Your task to perform on an android device: Open calendar and show me the third week of next month Image 0: 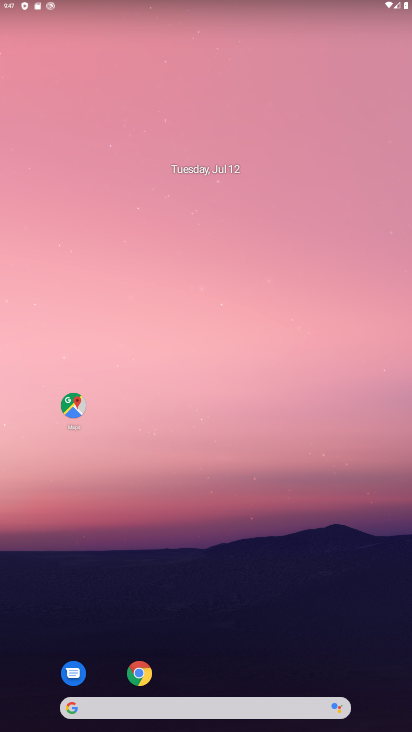
Step 0: drag from (238, 495) to (237, 1)
Your task to perform on an android device: Open calendar and show me the third week of next month Image 1: 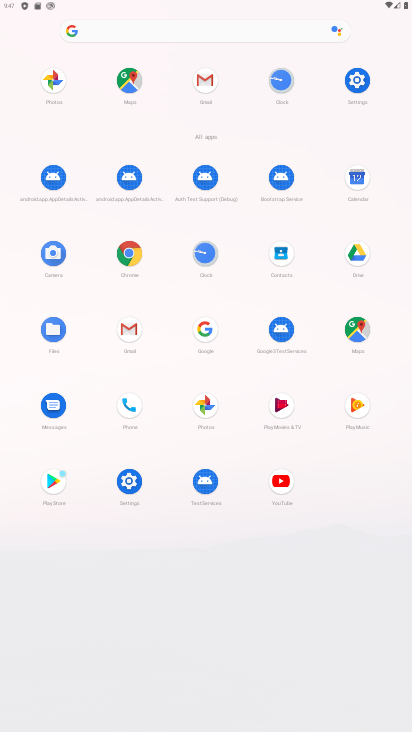
Step 1: click (356, 178)
Your task to perform on an android device: Open calendar and show me the third week of next month Image 2: 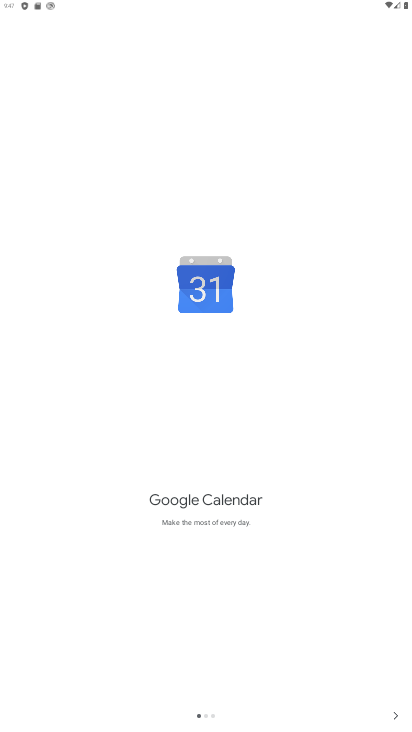
Step 2: click (401, 719)
Your task to perform on an android device: Open calendar and show me the third week of next month Image 3: 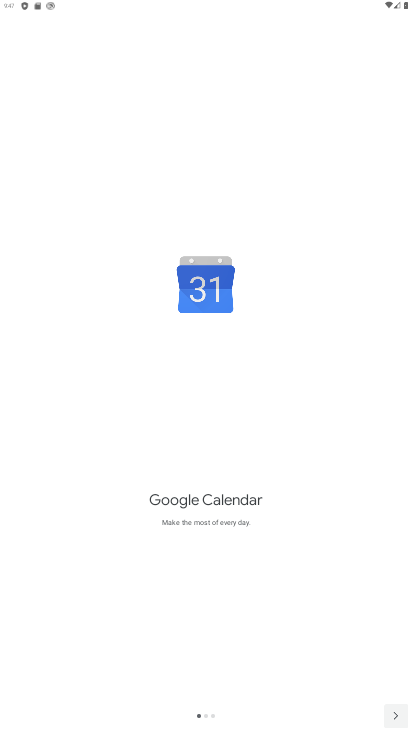
Step 3: click (401, 718)
Your task to perform on an android device: Open calendar and show me the third week of next month Image 4: 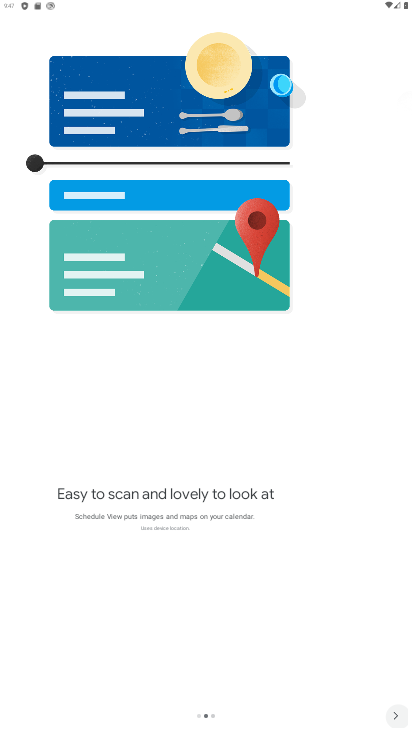
Step 4: click (401, 718)
Your task to perform on an android device: Open calendar and show me the third week of next month Image 5: 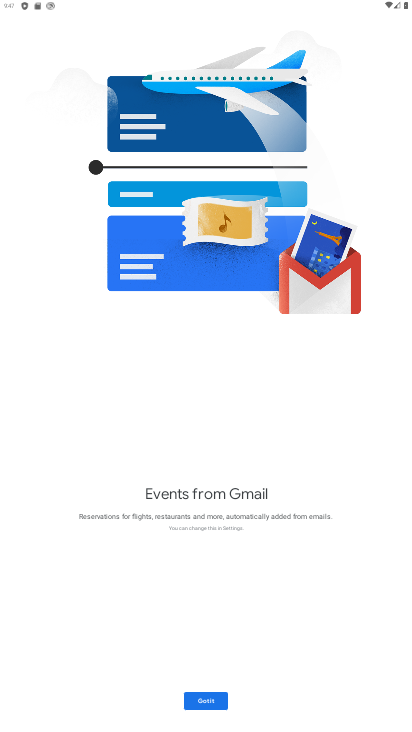
Step 5: click (401, 718)
Your task to perform on an android device: Open calendar and show me the third week of next month Image 6: 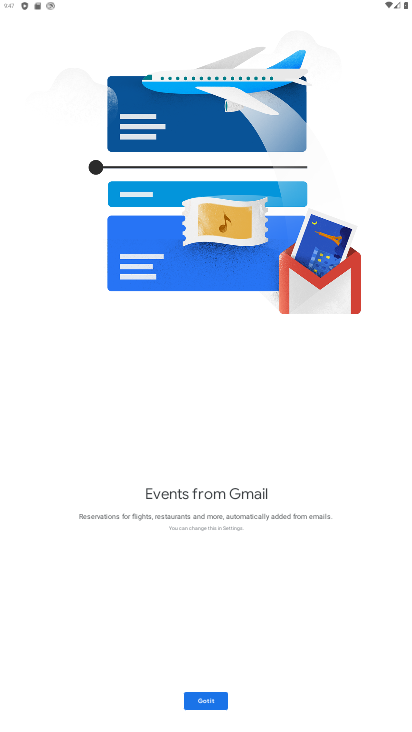
Step 6: click (202, 699)
Your task to perform on an android device: Open calendar and show me the third week of next month Image 7: 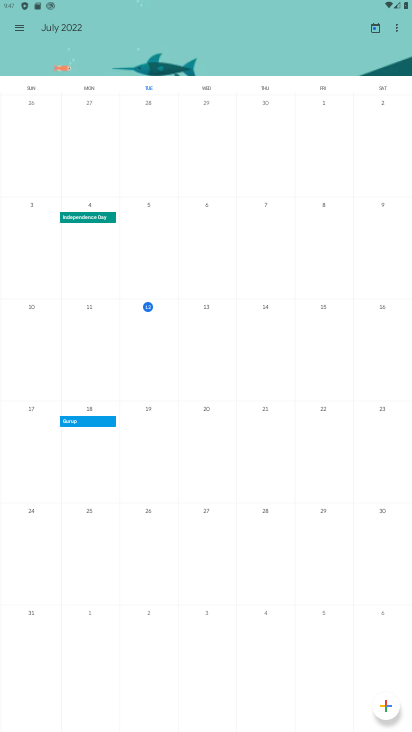
Step 7: drag from (372, 269) to (0, 228)
Your task to perform on an android device: Open calendar and show me the third week of next month Image 8: 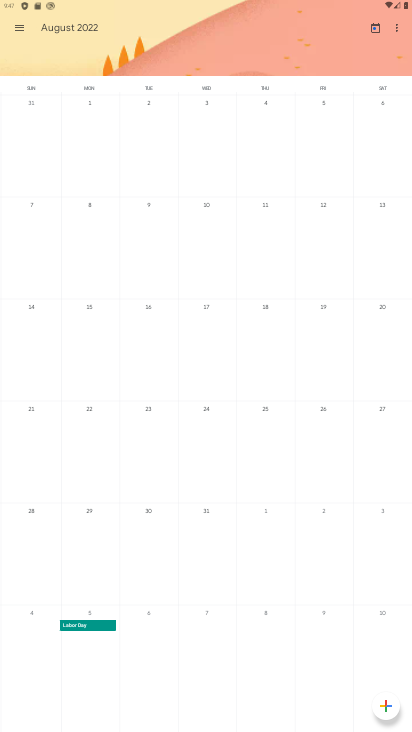
Step 8: click (93, 305)
Your task to perform on an android device: Open calendar and show me the third week of next month Image 9: 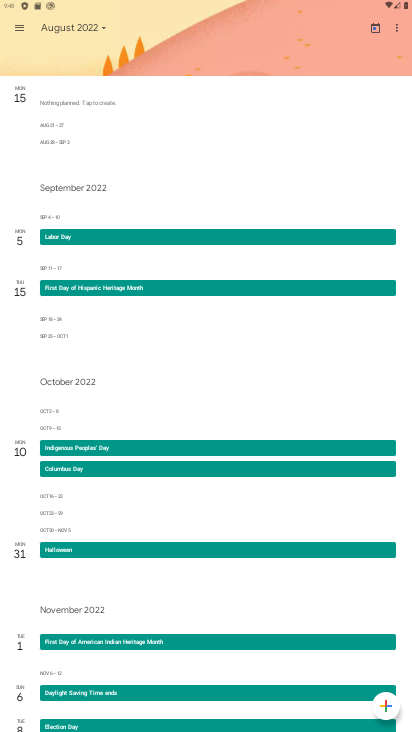
Step 9: click (23, 23)
Your task to perform on an android device: Open calendar and show me the third week of next month Image 10: 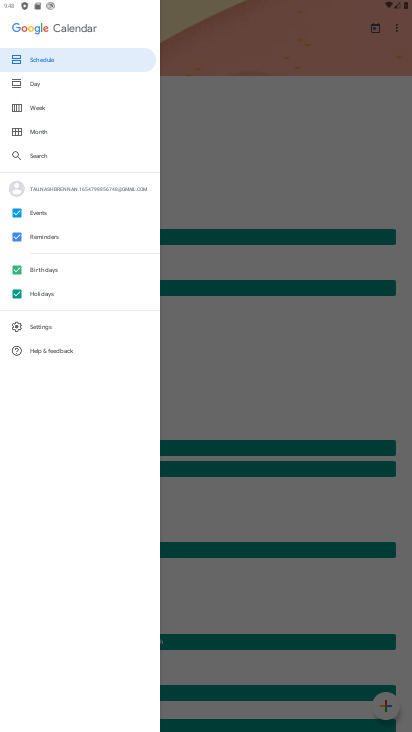
Step 10: click (37, 112)
Your task to perform on an android device: Open calendar and show me the third week of next month Image 11: 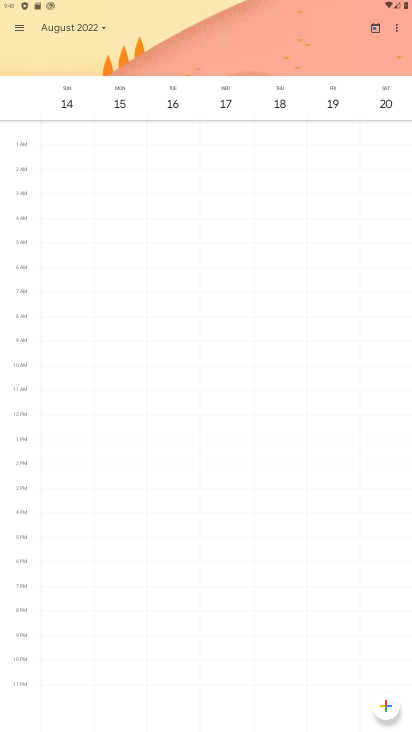
Step 11: task complete